Your task to perform on an android device: Open Google Image 0: 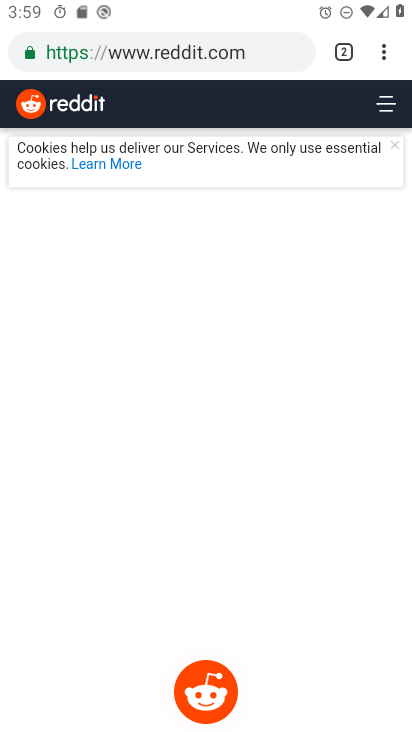
Step 0: press home button
Your task to perform on an android device: Open Google Image 1: 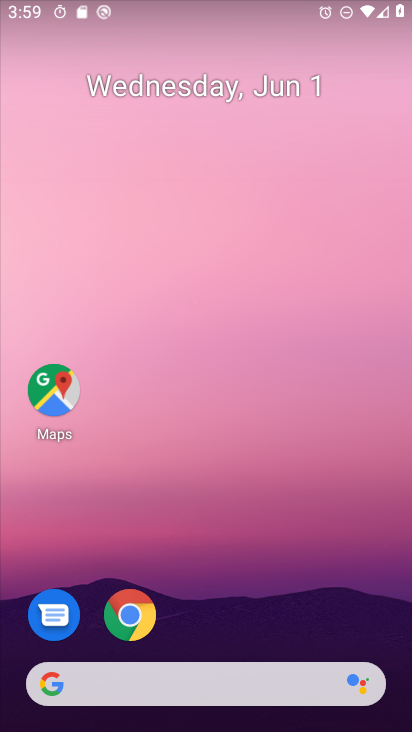
Step 1: drag from (285, 654) to (289, 18)
Your task to perform on an android device: Open Google Image 2: 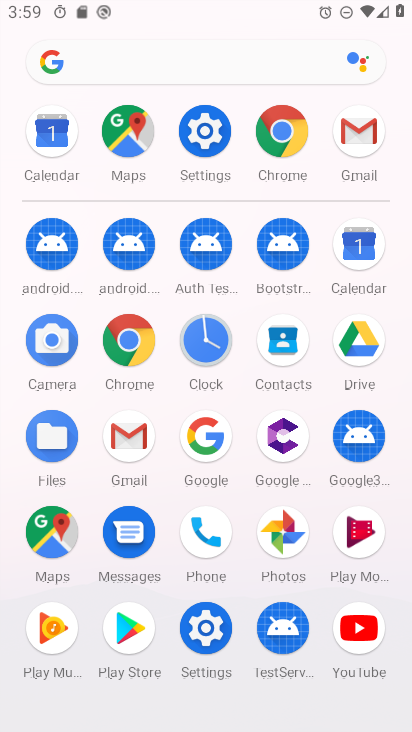
Step 2: click (142, 342)
Your task to perform on an android device: Open Google Image 3: 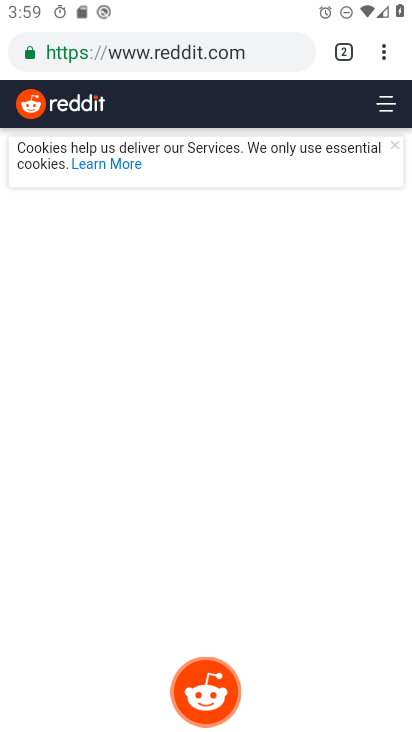
Step 3: task complete